Your task to perform on an android device: check the backup settings in the google photos Image 0: 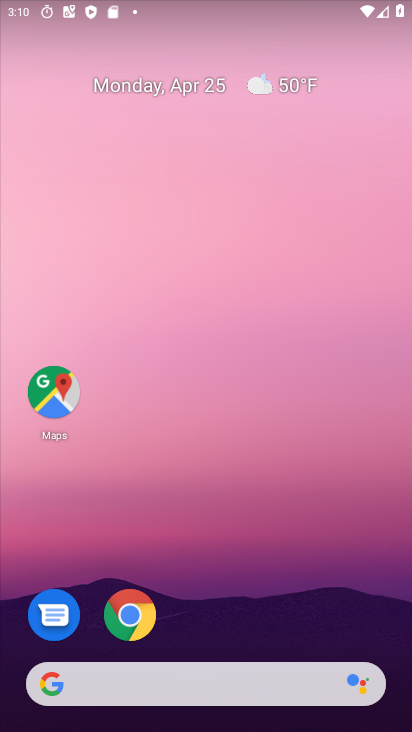
Step 0: drag from (208, 724) to (264, 84)
Your task to perform on an android device: check the backup settings in the google photos Image 1: 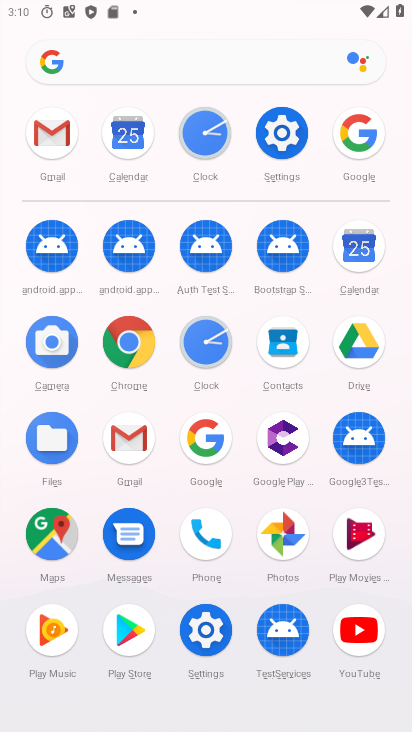
Step 1: click (281, 532)
Your task to perform on an android device: check the backup settings in the google photos Image 2: 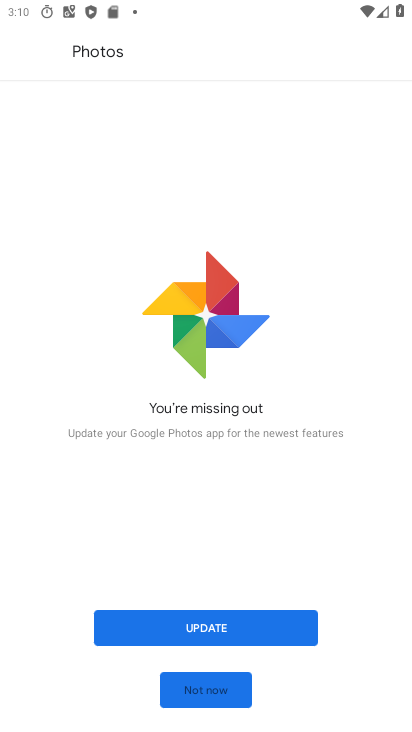
Step 2: task complete